Your task to perform on an android device: What's the top post on reddit right now? Image 0: 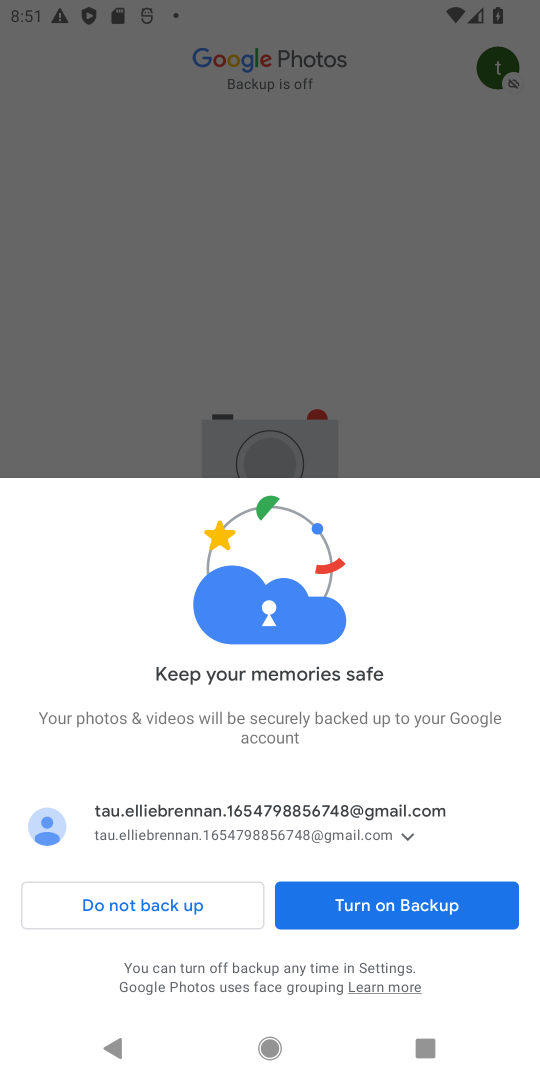
Step 0: press home button
Your task to perform on an android device: What's the top post on reddit right now? Image 1: 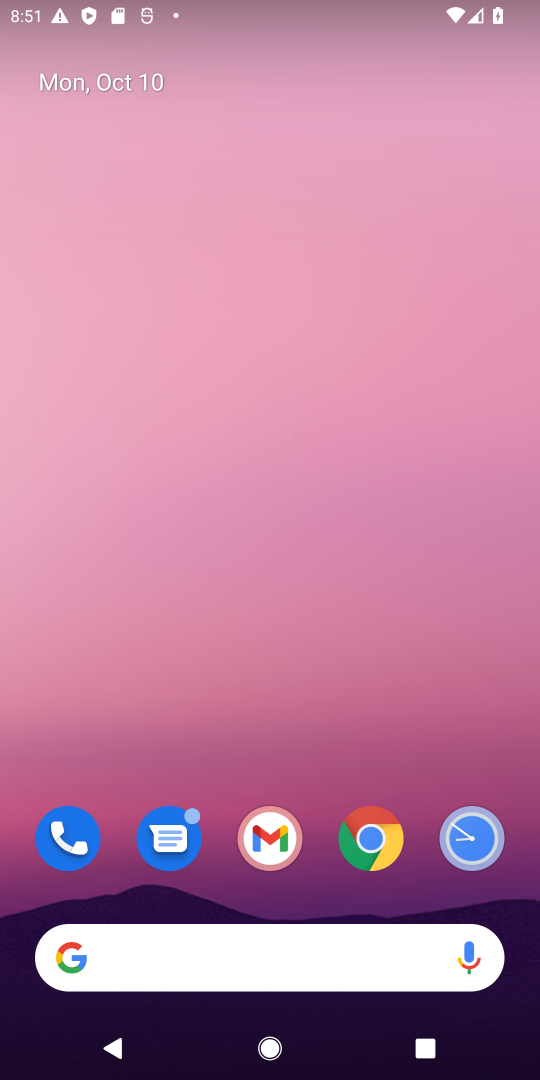
Step 1: drag from (307, 891) to (260, 20)
Your task to perform on an android device: What's the top post on reddit right now? Image 2: 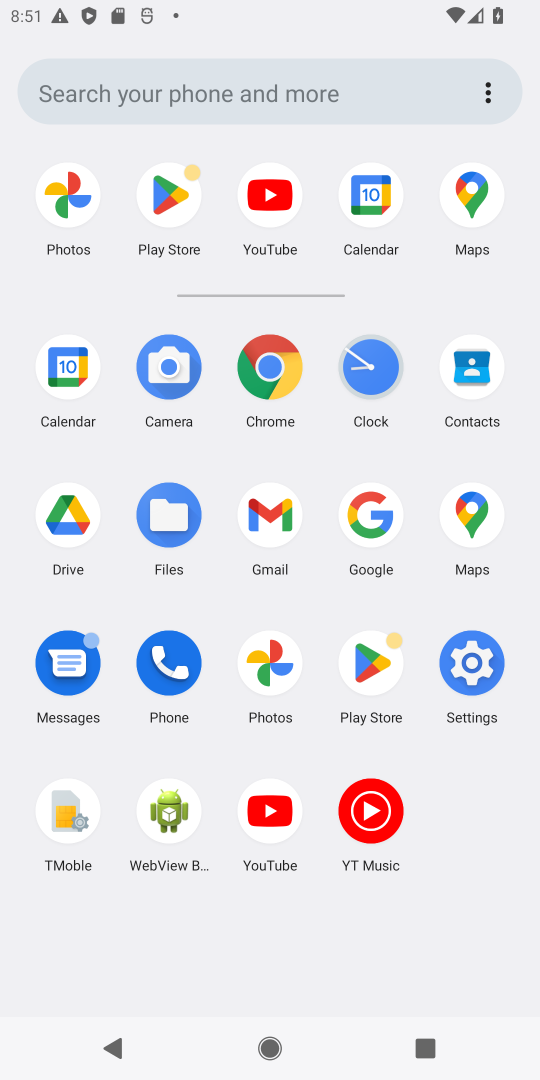
Step 2: click (378, 513)
Your task to perform on an android device: What's the top post on reddit right now? Image 3: 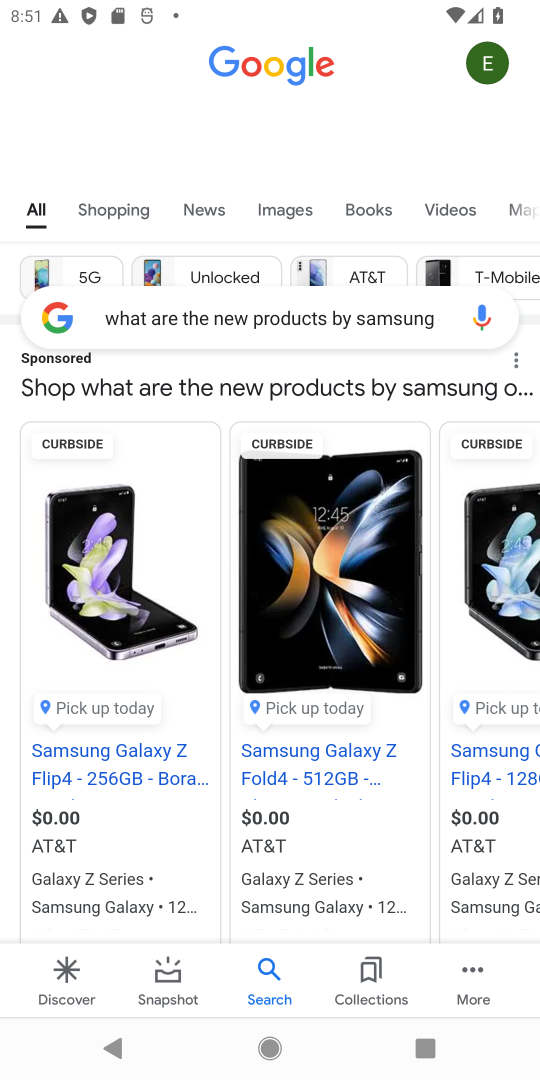
Step 3: click (284, 325)
Your task to perform on an android device: What's the top post on reddit right now? Image 4: 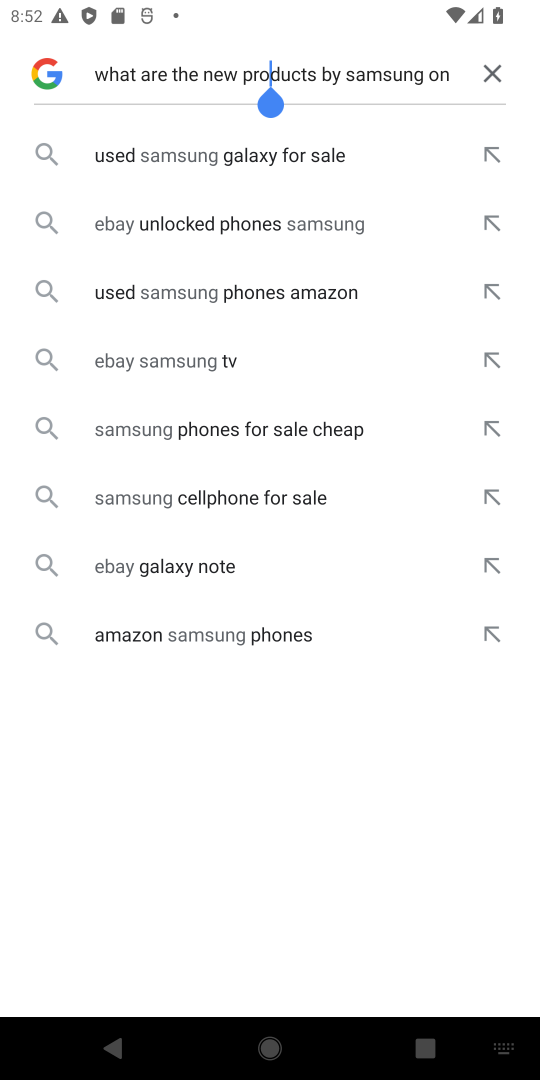
Step 4: click (489, 72)
Your task to perform on an android device: What's the top post on reddit right now? Image 5: 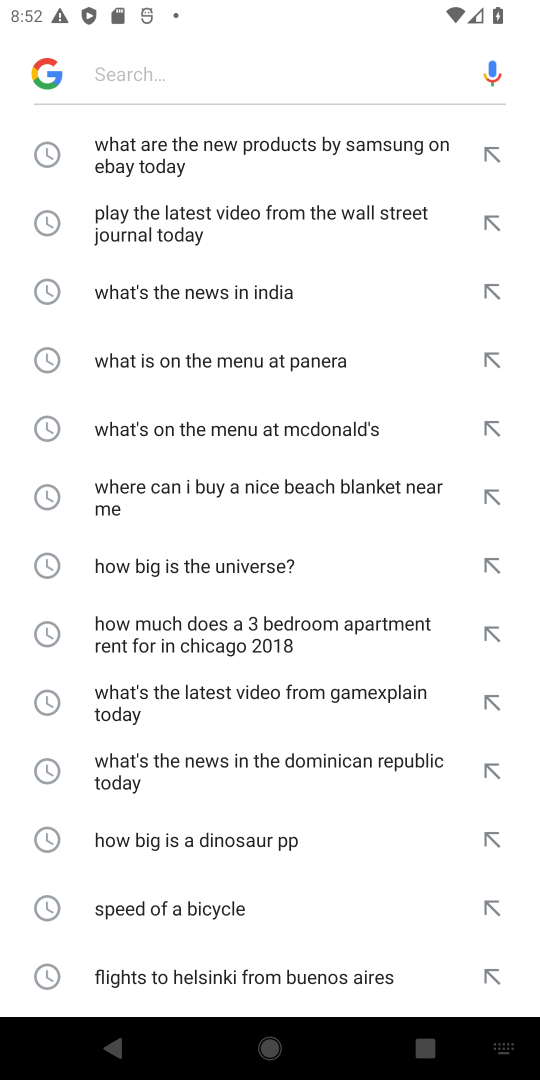
Step 5: type "What's the top post on reddit right now?"
Your task to perform on an android device: What's the top post on reddit right now? Image 6: 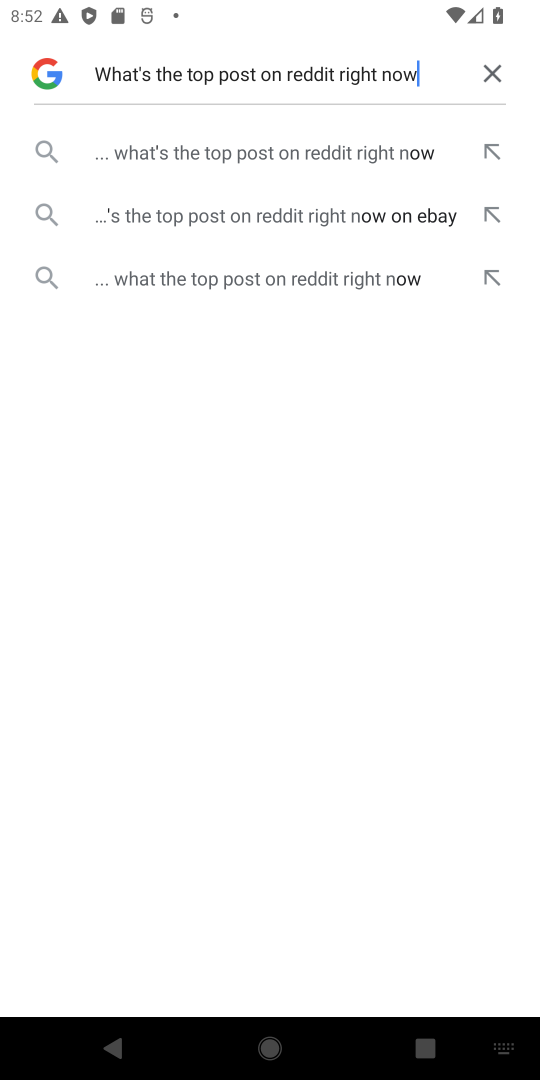
Step 6: type ""
Your task to perform on an android device: What's the top post on reddit right now? Image 7: 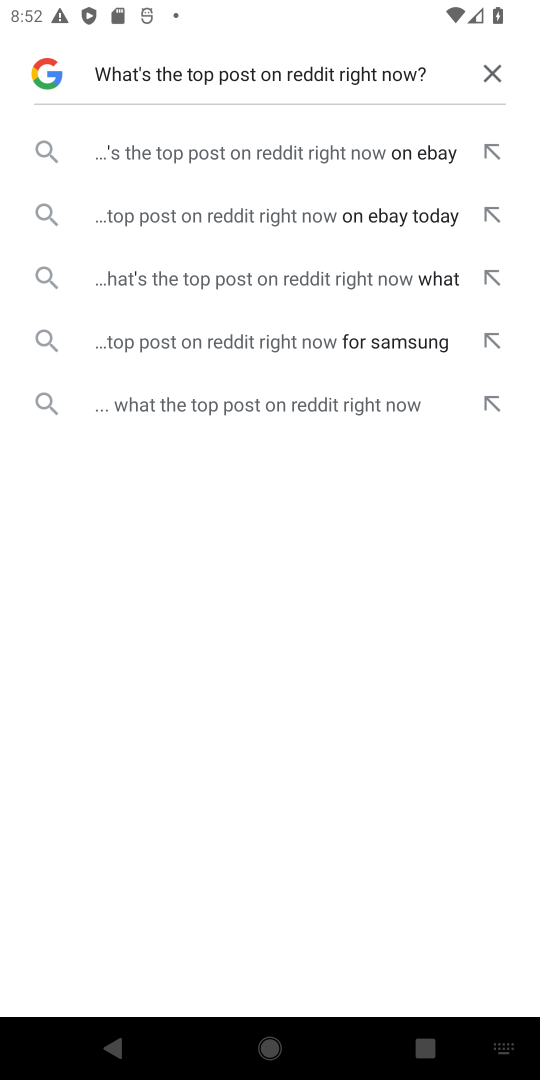
Step 7: click (253, 407)
Your task to perform on an android device: What's the top post on reddit right now? Image 8: 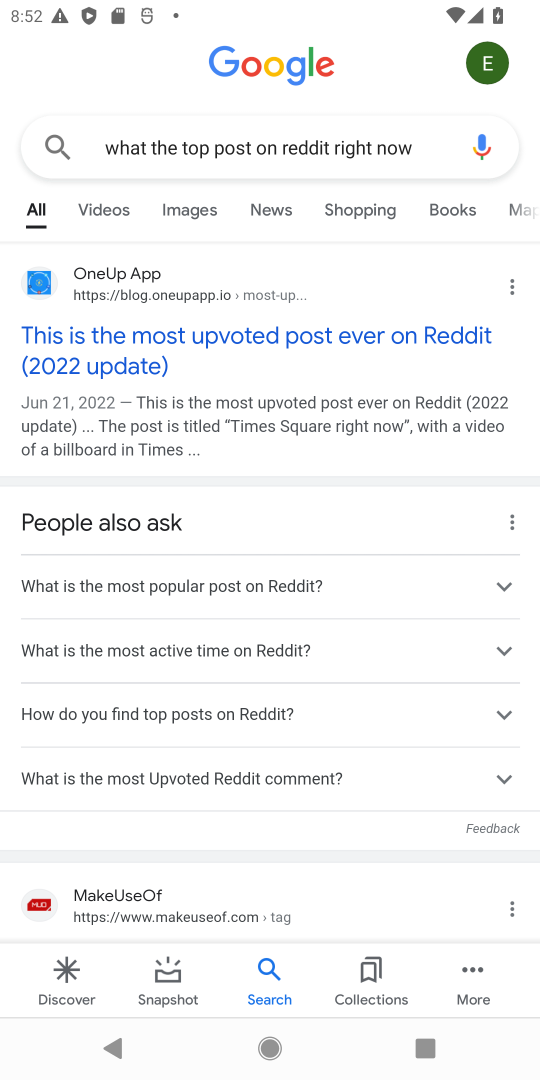
Step 8: click (247, 592)
Your task to perform on an android device: What's the top post on reddit right now? Image 9: 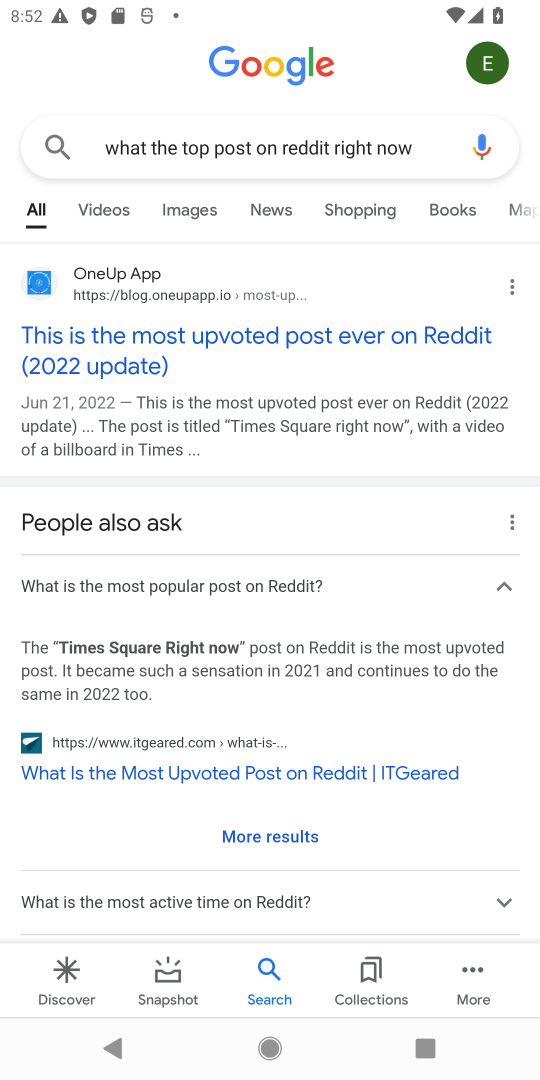
Step 9: task complete